Your task to perform on an android device: Add "apple airpods pro" to the cart on bestbuy.com, then select checkout. Image 0: 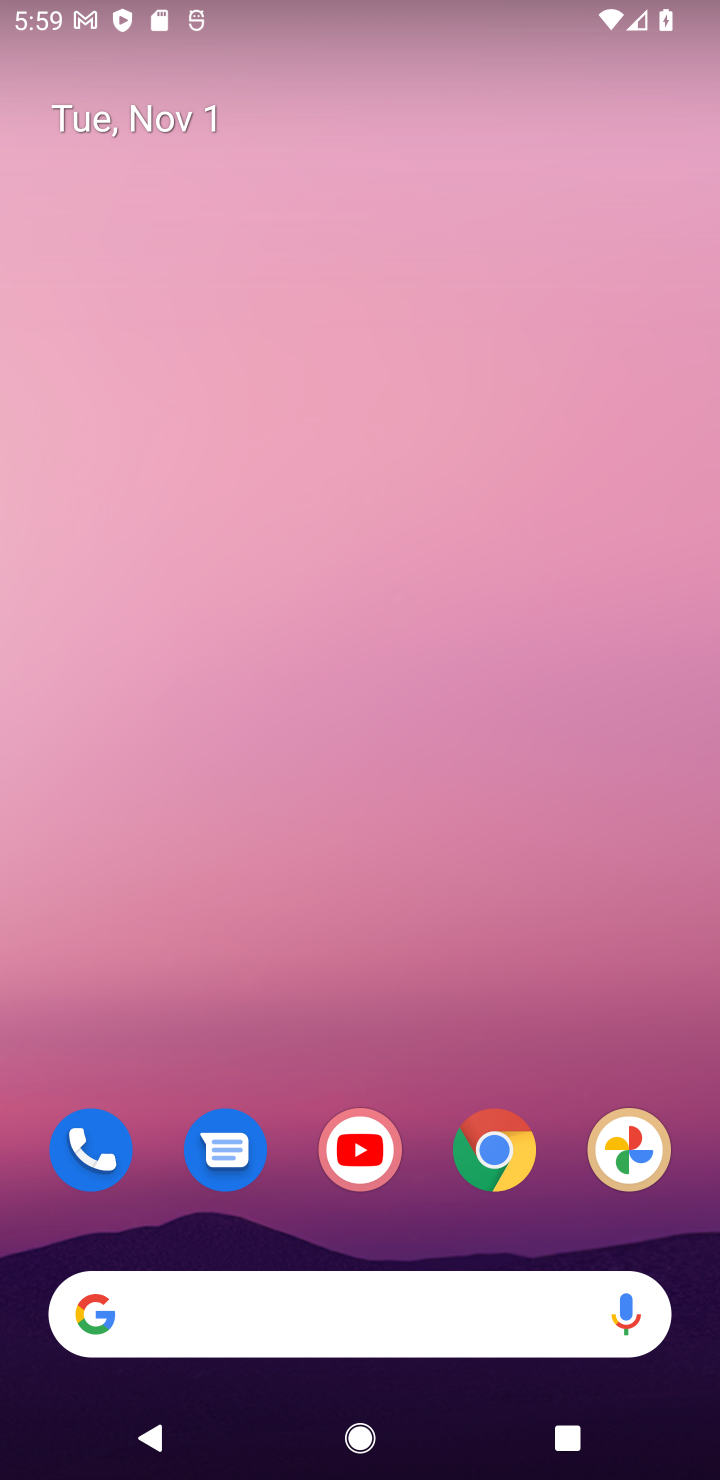
Step 0: click (502, 1159)
Your task to perform on an android device: Add "apple airpods pro" to the cart on bestbuy.com, then select checkout. Image 1: 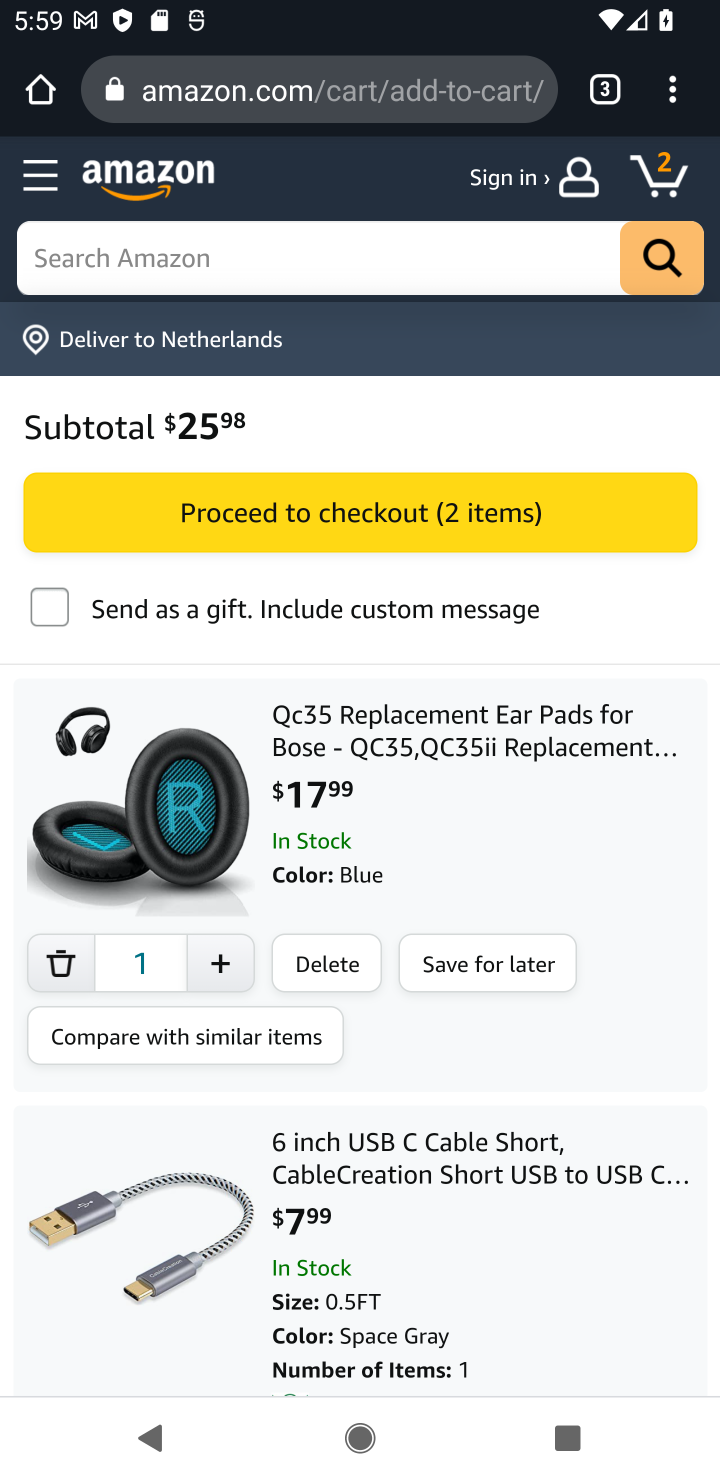
Step 1: click (619, 96)
Your task to perform on an android device: Add "apple airpods pro" to the cart on bestbuy.com, then select checkout. Image 2: 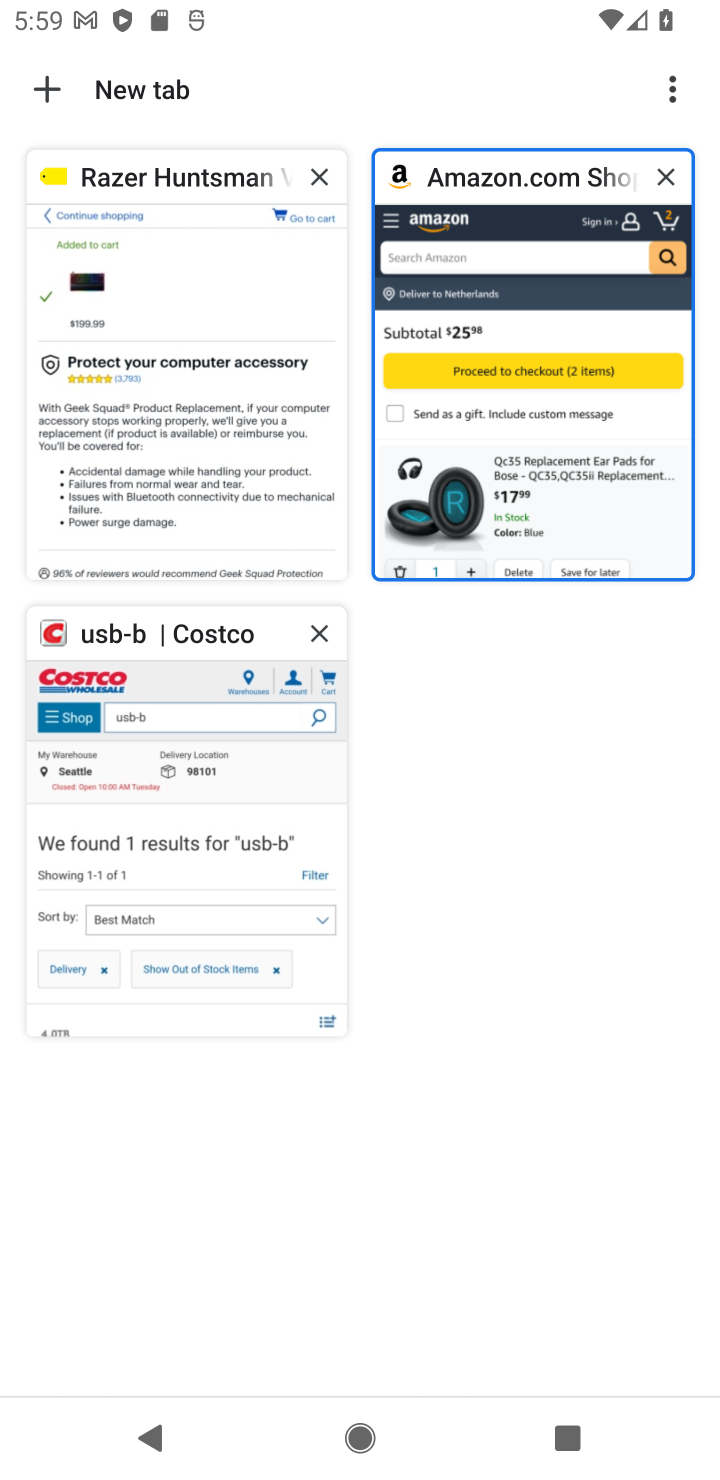
Step 2: click (173, 293)
Your task to perform on an android device: Add "apple airpods pro" to the cart on bestbuy.com, then select checkout. Image 3: 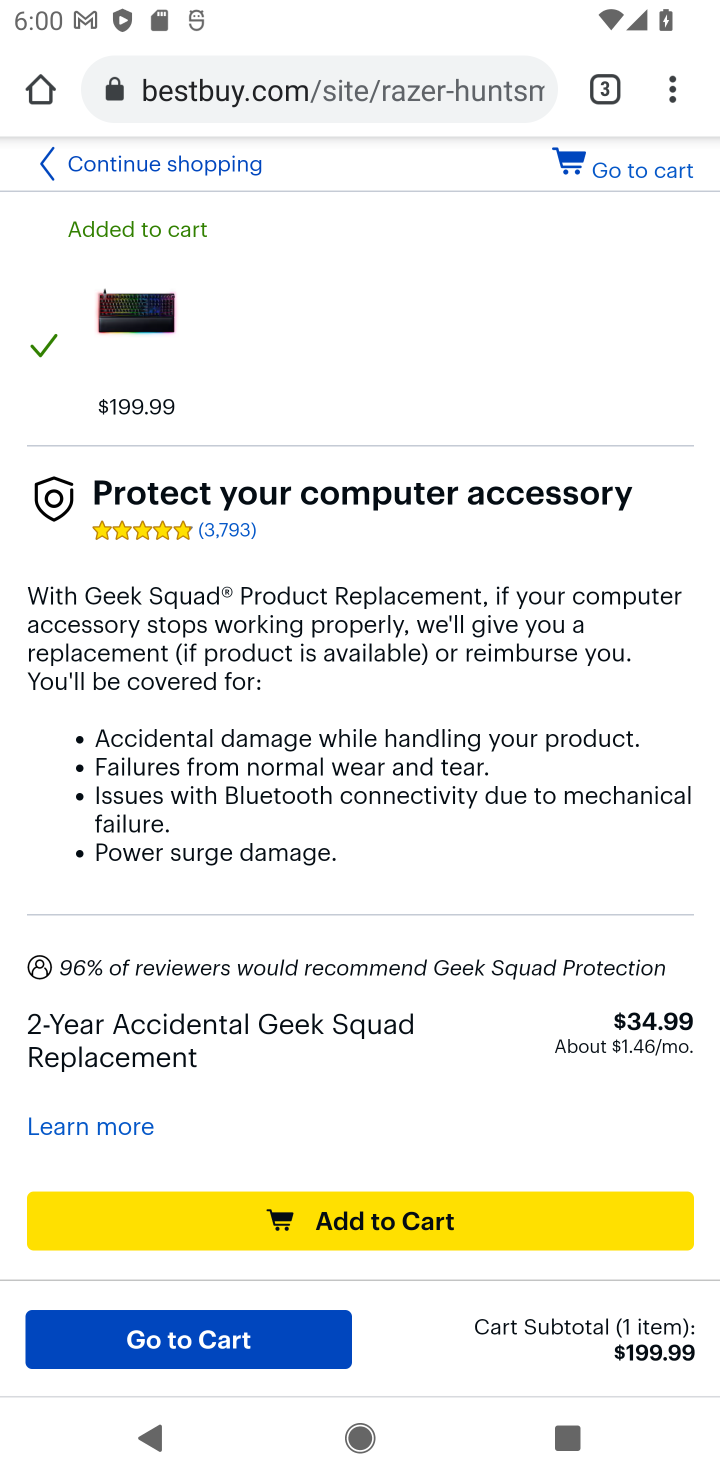
Step 3: click (232, 165)
Your task to perform on an android device: Add "apple airpods pro" to the cart on bestbuy.com, then select checkout. Image 4: 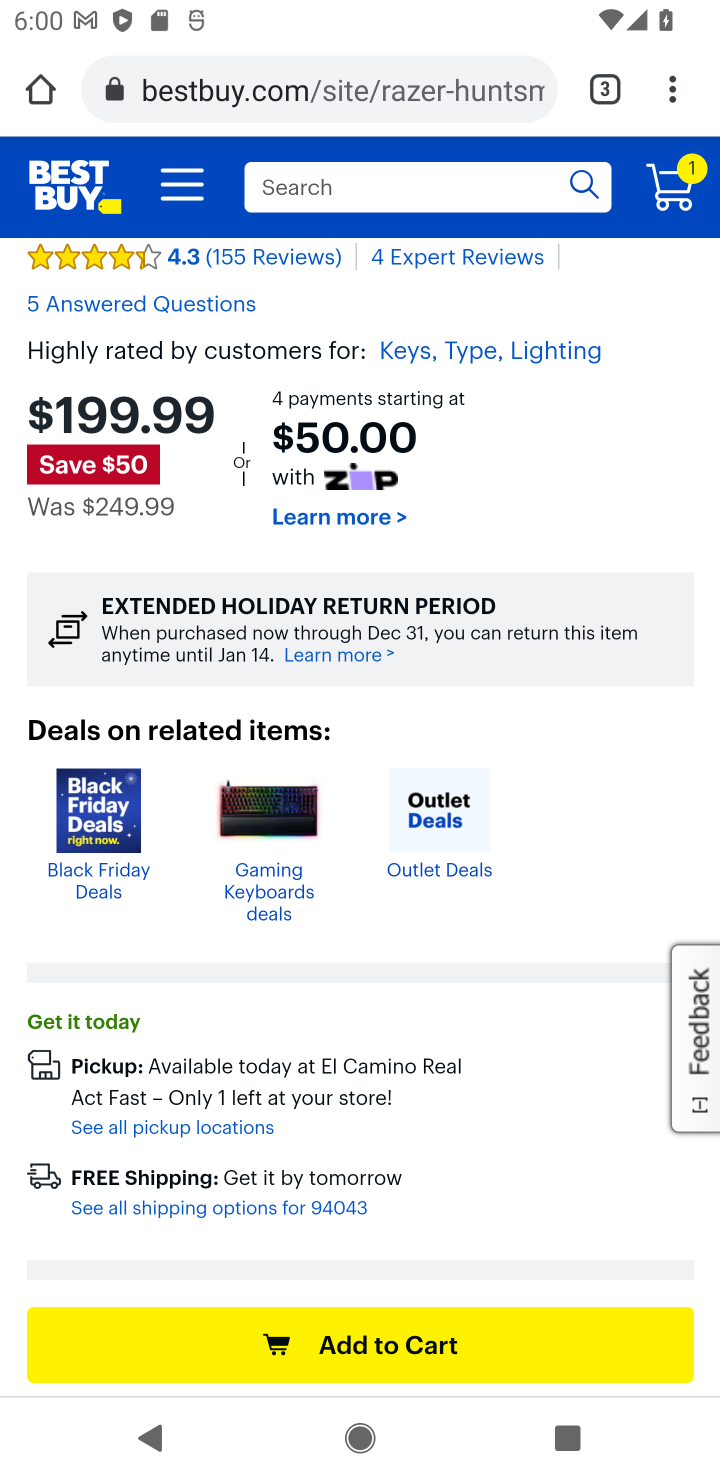
Step 4: click (210, 162)
Your task to perform on an android device: Add "apple airpods pro" to the cart on bestbuy.com, then select checkout. Image 5: 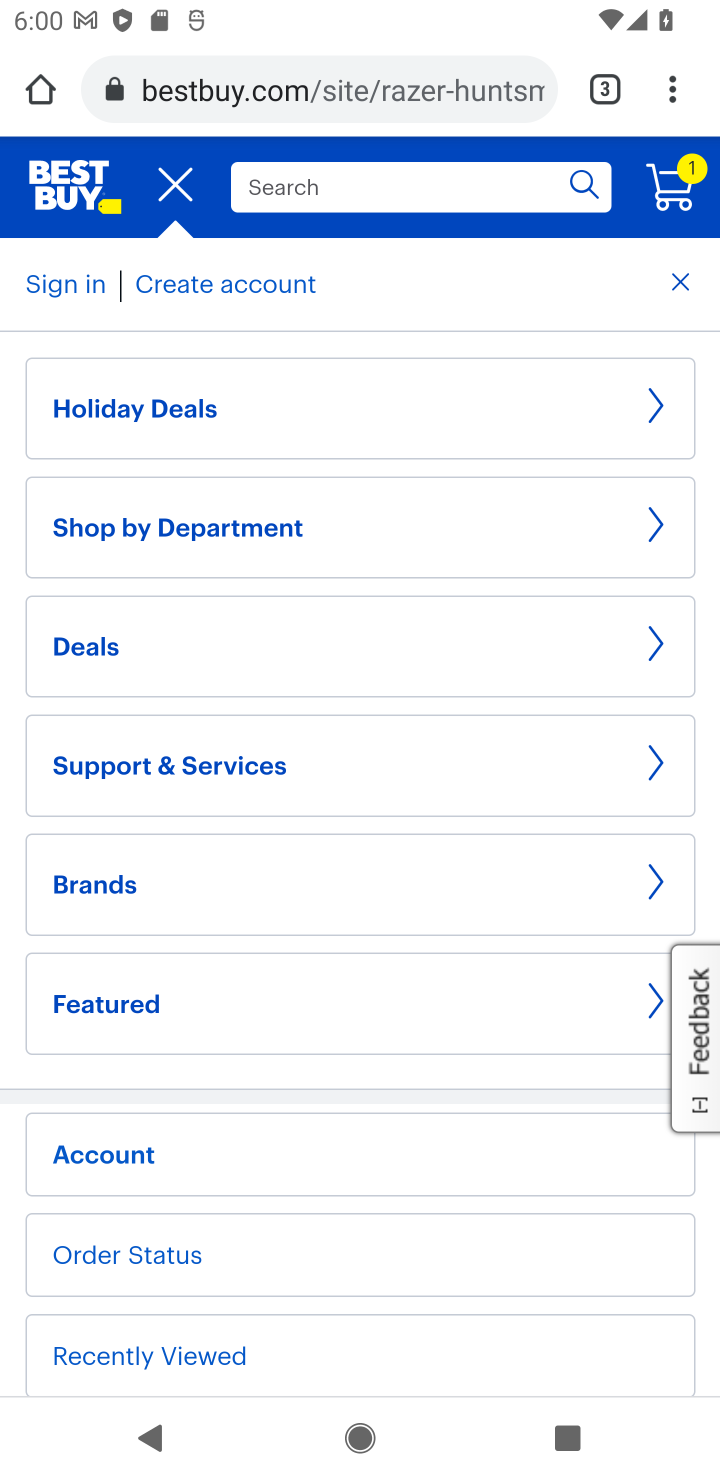
Step 5: click (228, 162)
Your task to perform on an android device: Add "apple airpods pro" to the cart on bestbuy.com, then select checkout. Image 6: 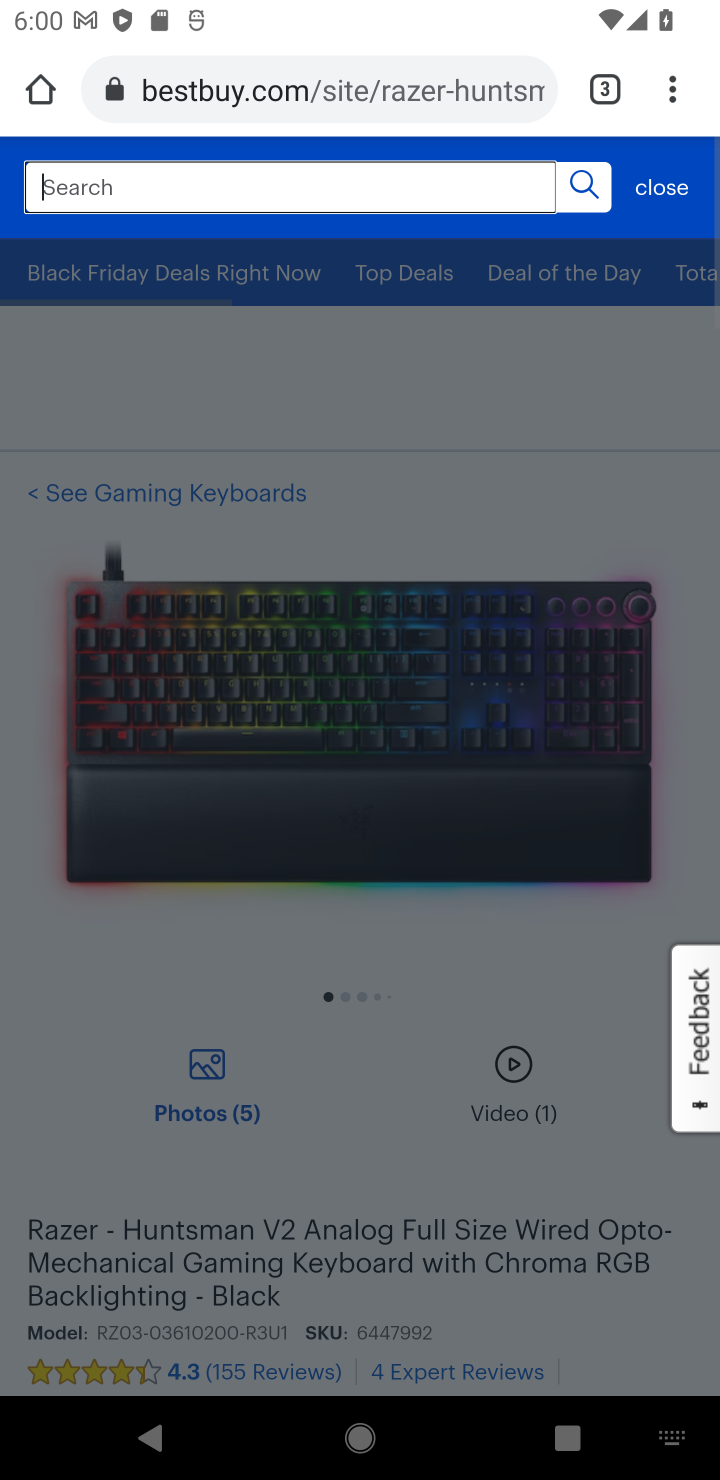
Step 6: click (300, 183)
Your task to perform on an android device: Add "apple airpods pro" to the cart on bestbuy.com, then select checkout. Image 7: 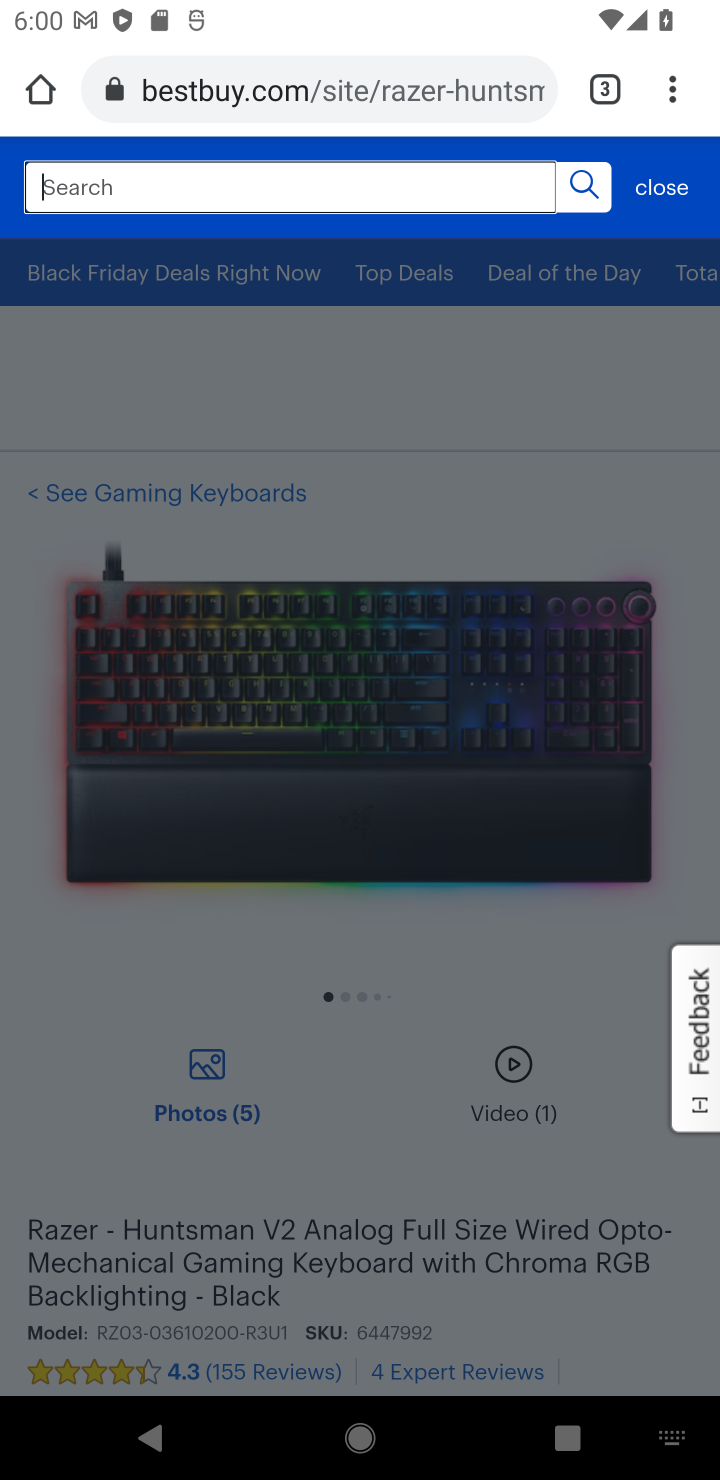
Step 7: type "apple airpods pro"
Your task to perform on an android device: Add "apple airpods pro" to the cart on bestbuy.com, then select checkout. Image 8: 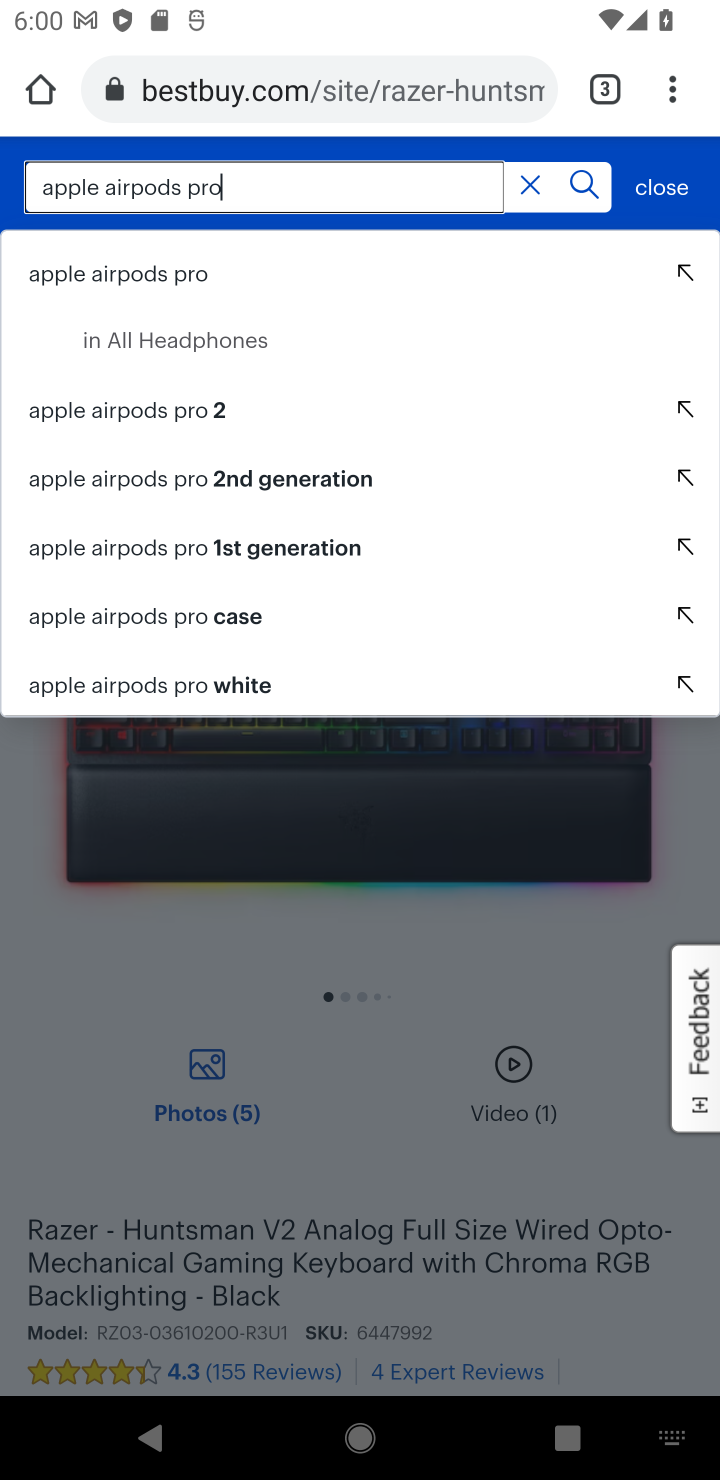
Step 8: click (174, 283)
Your task to perform on an android device: Add "apple airpods pro" to the cart on bestbuy.com, then select checkout. Image 9: 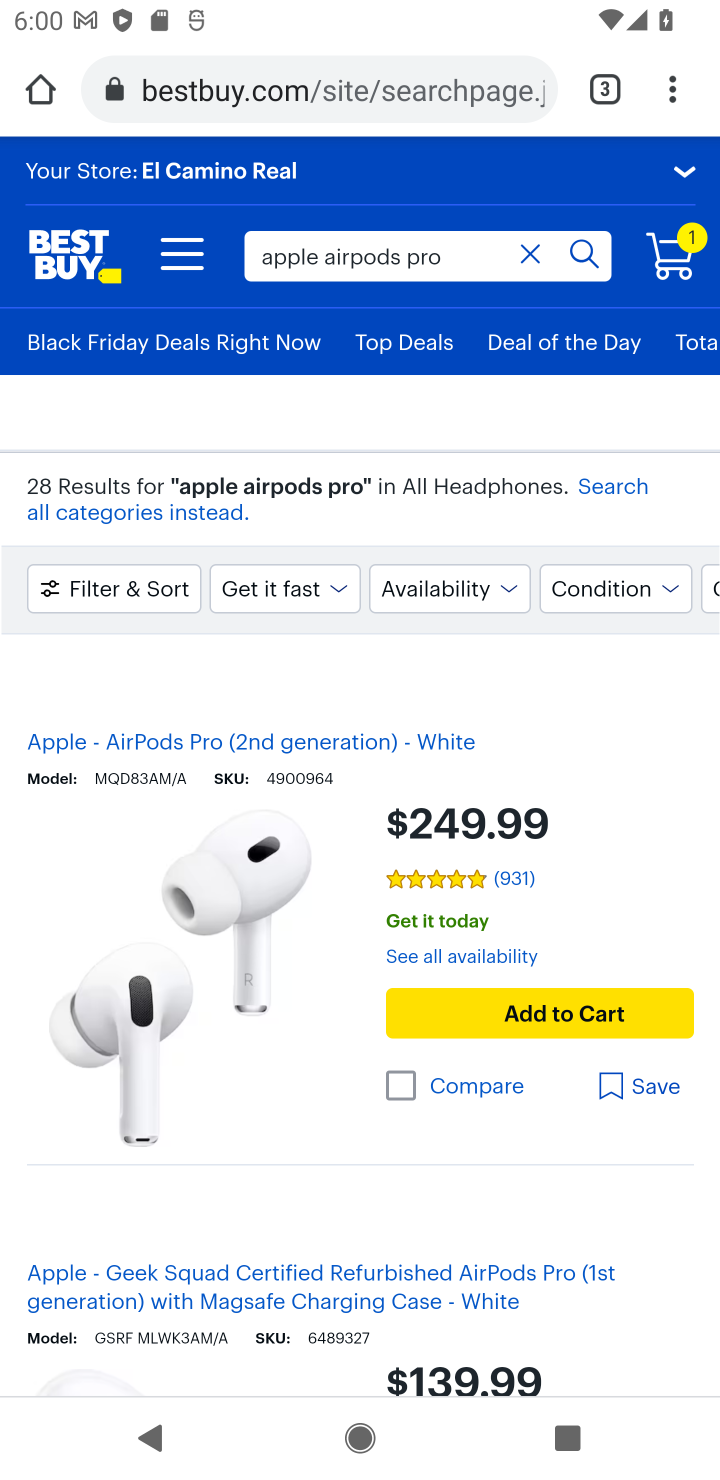
Step 9: click (538, 944)
Your task to perform on an android device: Add "apple airpods pro" to the cart on bestbuy.com, then select checkout. Image 10: 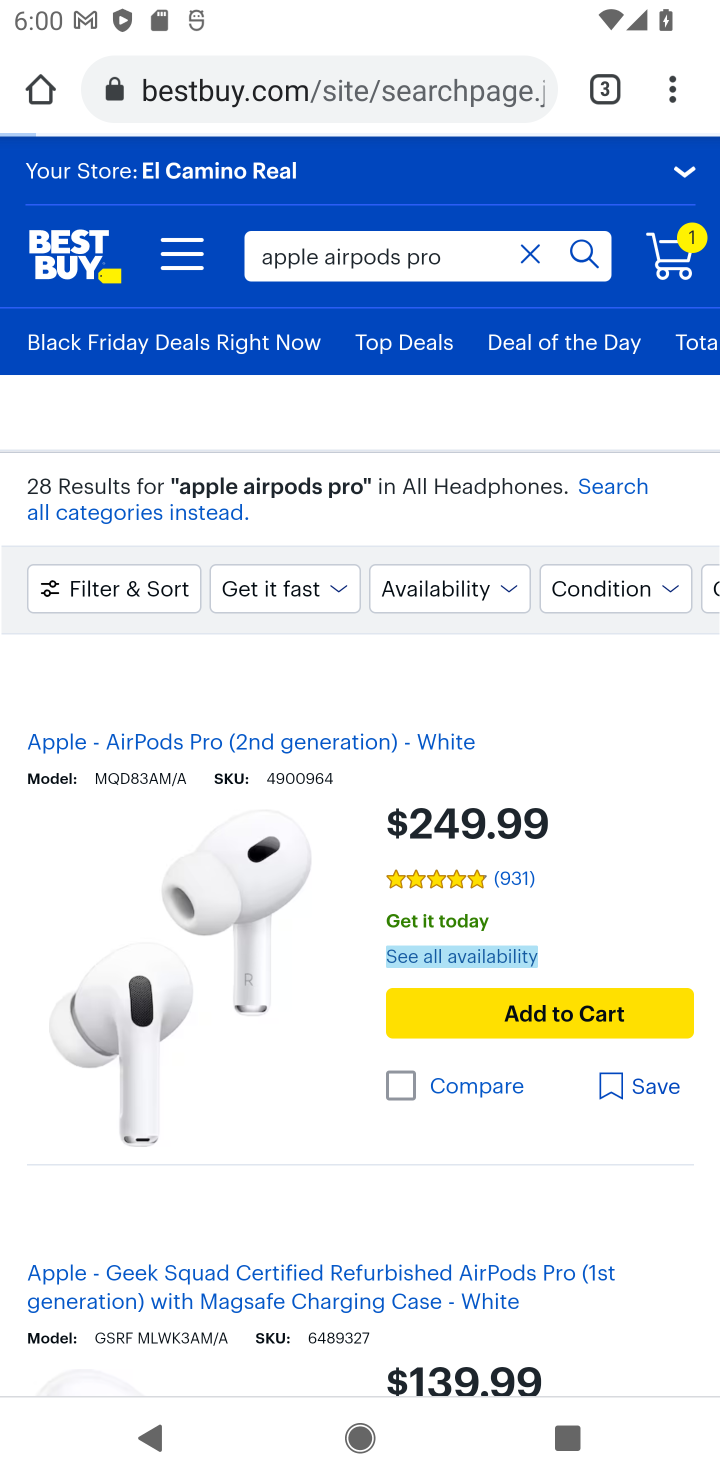
Step 10: click (564, 999)
Your task to perform on an android device: Add "apple airpods pro" to the cart on bestbuy.com, then select checkout. Image 11: 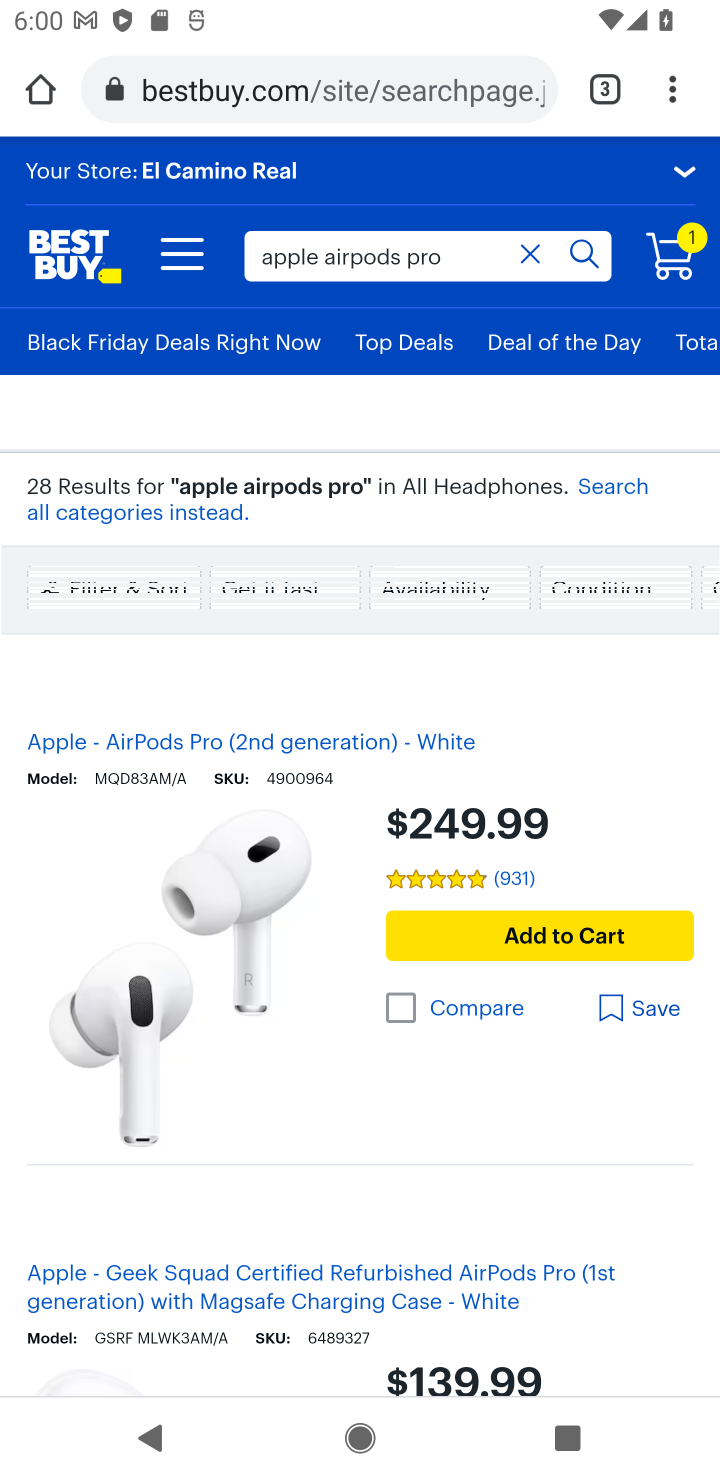
Step 11: click (672, 252)
Your task to perform on an android device: Add "apple airpods pro" to the cart on bestbuy.com, then select checkout. Image 12: 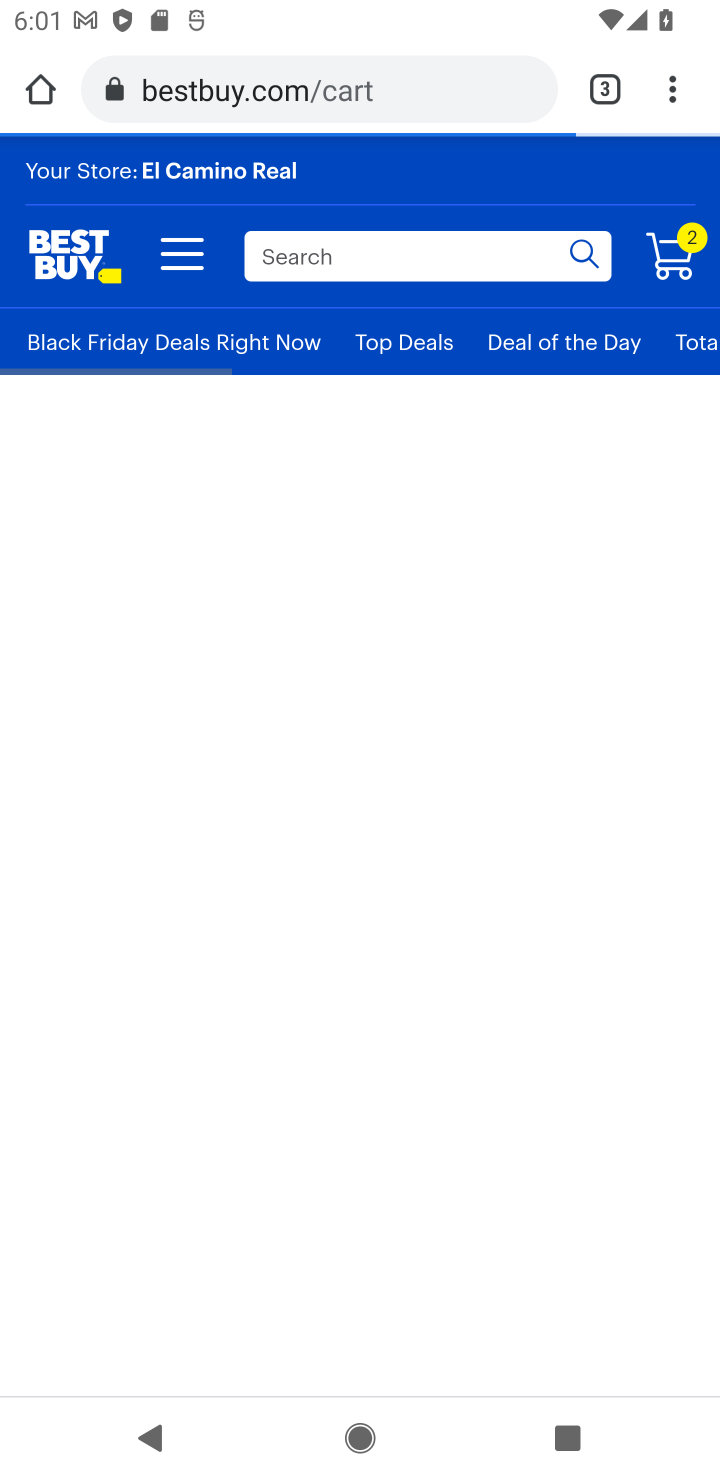
Step 12: click (672, 252)
Your task to perform on an android device: Add "apple airpods pro" to the cart on bestbuy.com, then select checkout. Image 13: 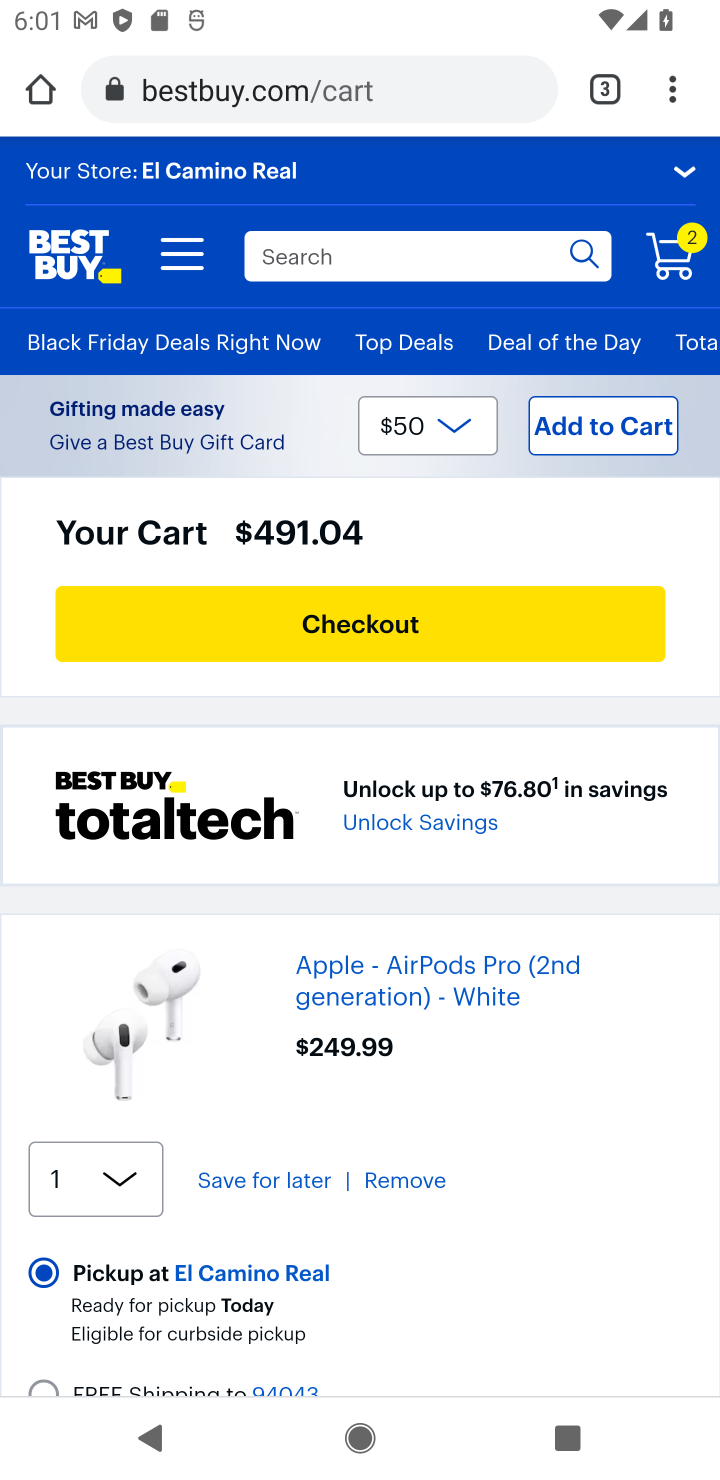
Step 13: click (342, 633)
Your task to perform on an android device: Add "apple airpods pro" to the cart on bestbuy.com, then select checkout. Image 14: 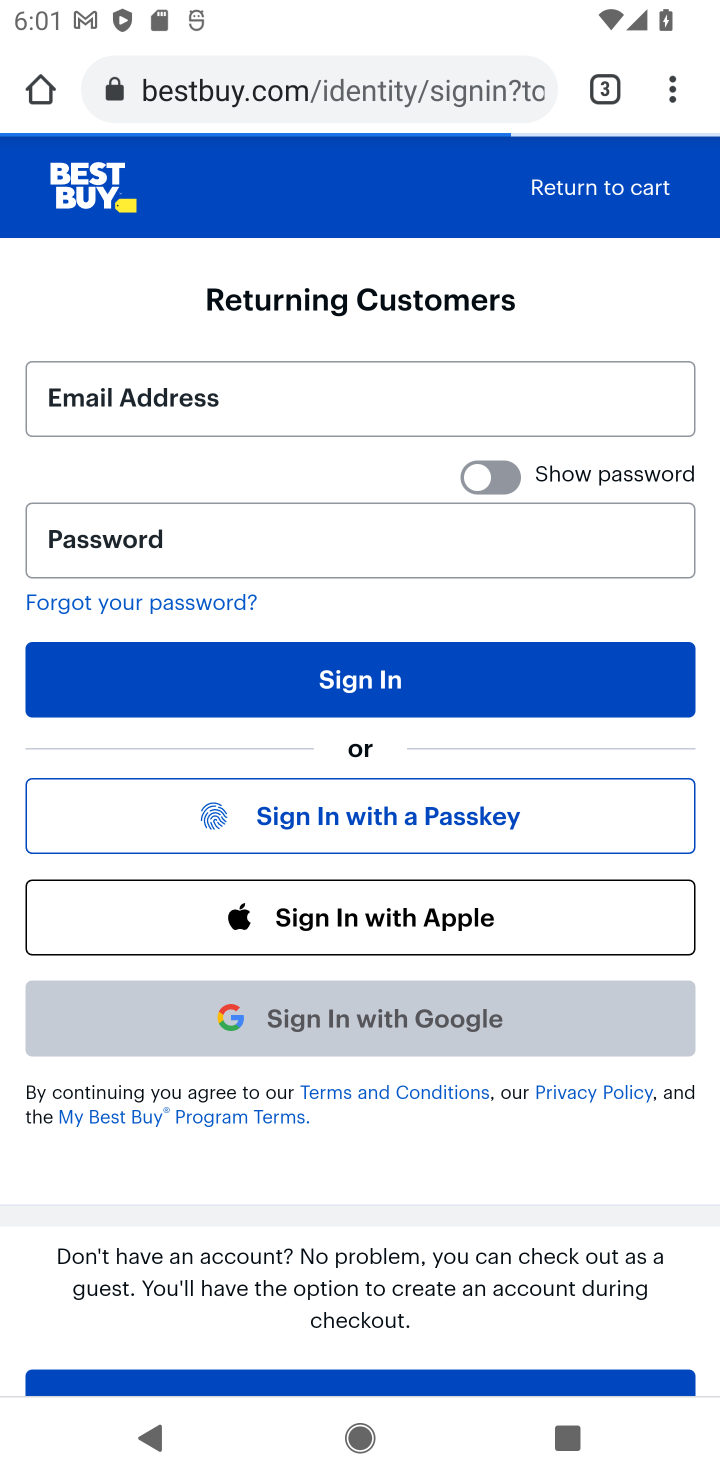
Step 14: task complete